Your task to perform on an android device: What is the recent news? Image 0: 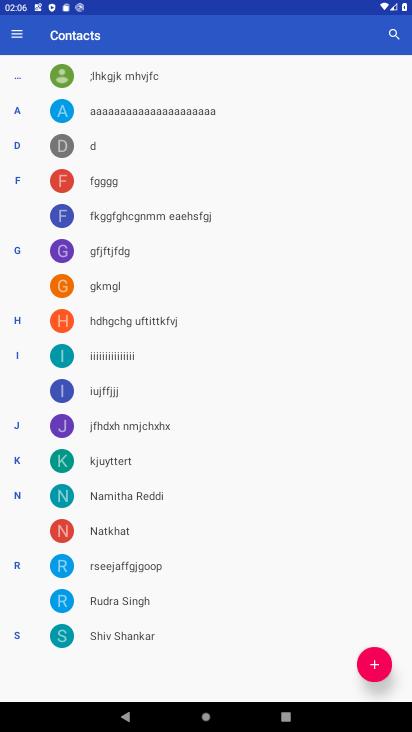
Step 0: press home button
Your task to perform on an android device: What is the recent news? Image 1: 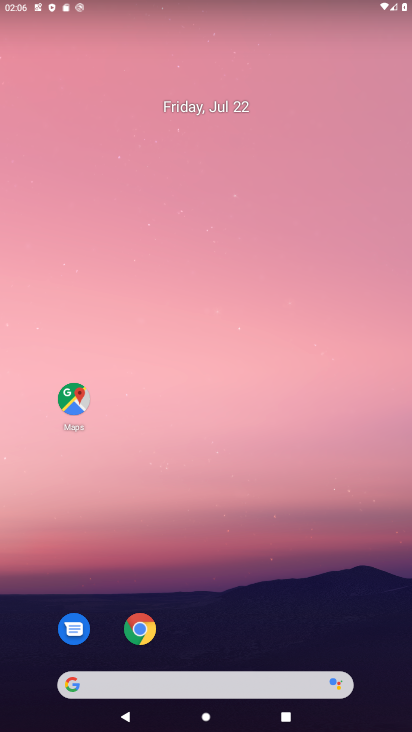
Step 1: click (260, 678)
Your task to perform on an android device: What is the recent news? Image 2: 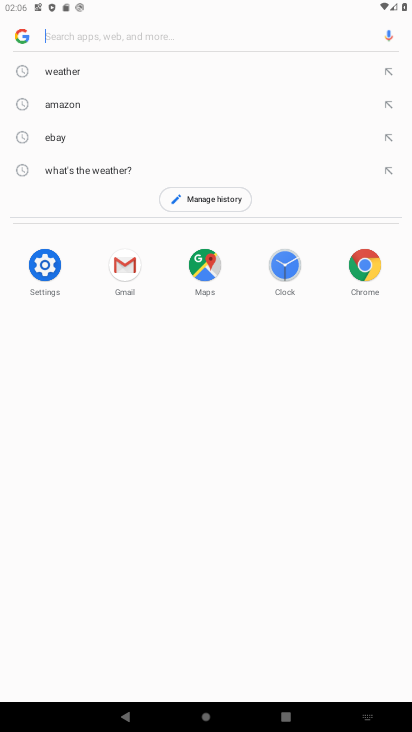
Step 2: click (138, 28)
Your task to perform on an android device: What is the recent news? Image 3: 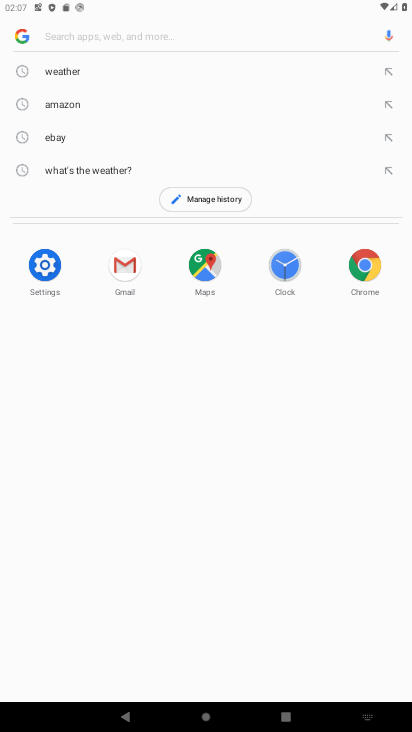
Step 3: type "recent news"
Your task to perform on an android device: What is the recent news? Image 4: 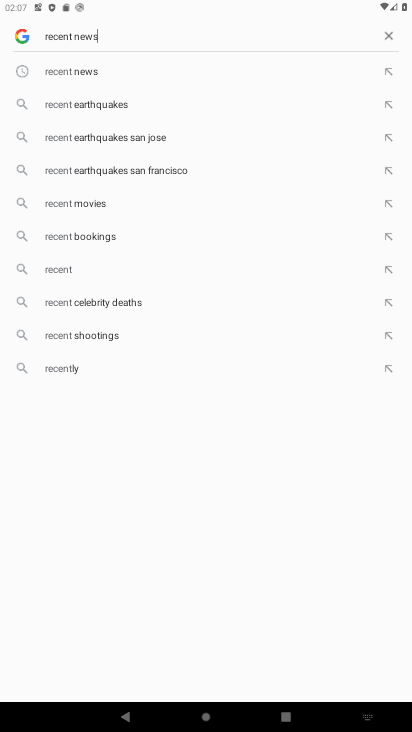
Step 4: type ""
Your task to perform on an android device: What is the recent news? Image 5: 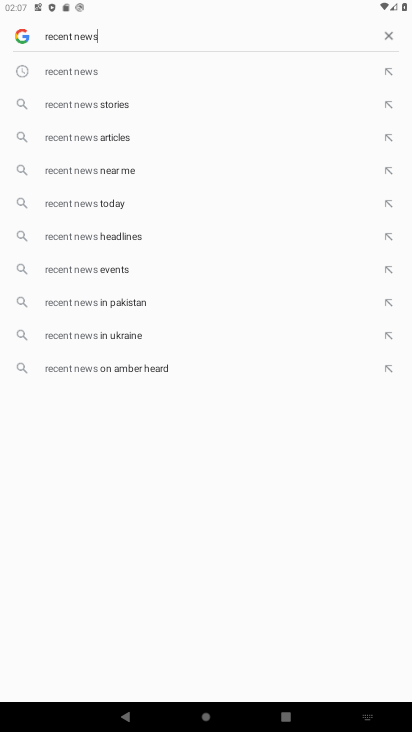
Step 5: click (96, 69)
Your task to perform on an android device: What is the recent news? Image 6: 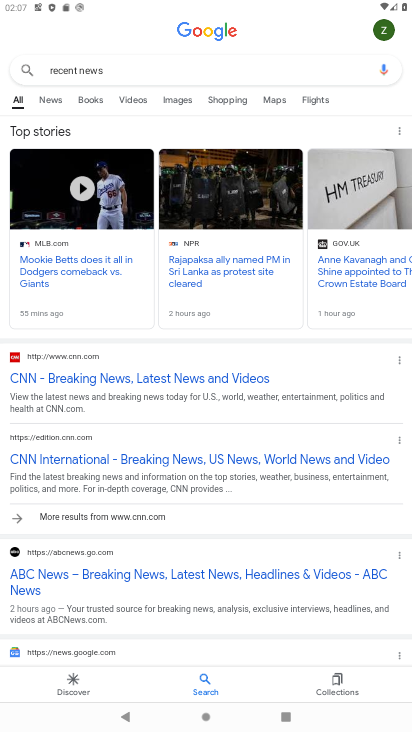
Step 6: task complete